Your task to perform on an android device: turn on showing notifications on the lock screen Image 0: 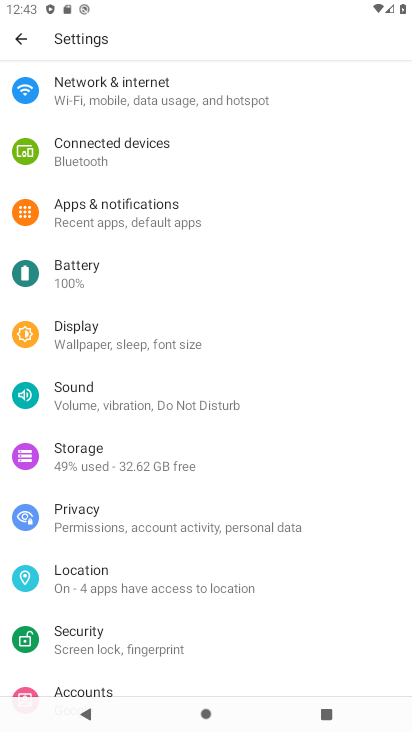
Step 0: press home button
Your task to perform on an android device: turn on showing notifications on the lock screen Image 1: 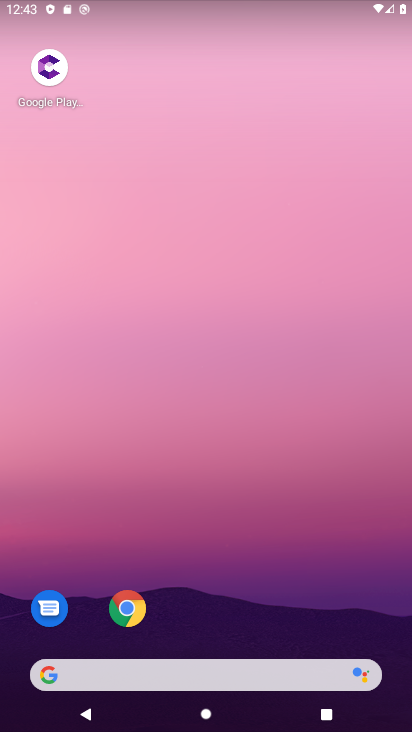
Step 1: drag from (214, 606) to (297, 221)
Your task to perform on an android device: turn on showing notifications on the lock screen Image 2: 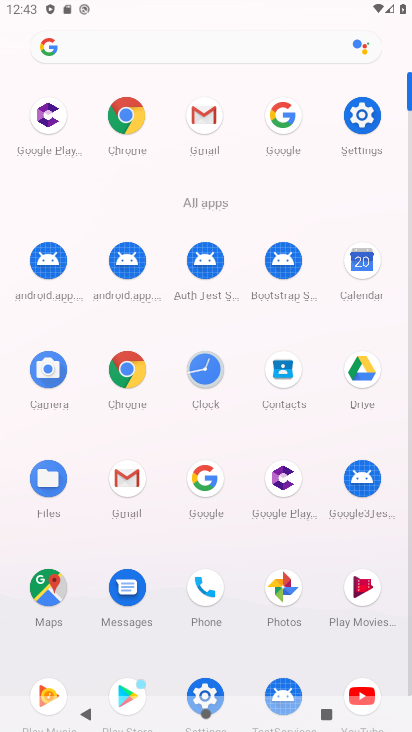
Step 2: click (365, 120)
Your task to perform on an android device: turn on showing notifications on the lock screen Image 3: 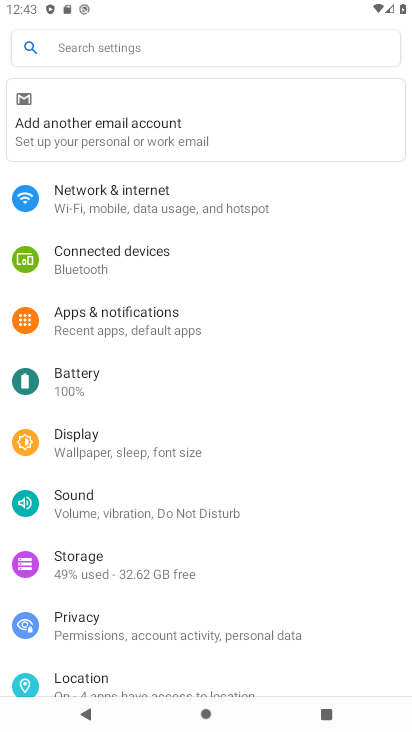
Step 3: click (178, 323)
Your task to perform on an android device: turn on showing notifications on the lock screen Image 4: 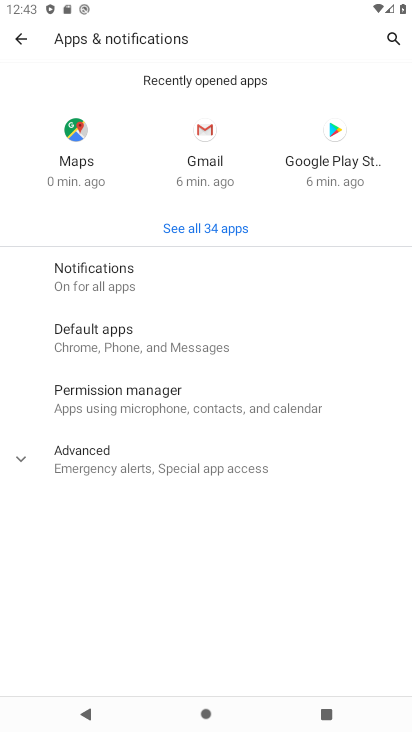
Step 4: click (177, 283)
Your task to perform on an android device: turn on showing notifications on the lock screen Image 5: 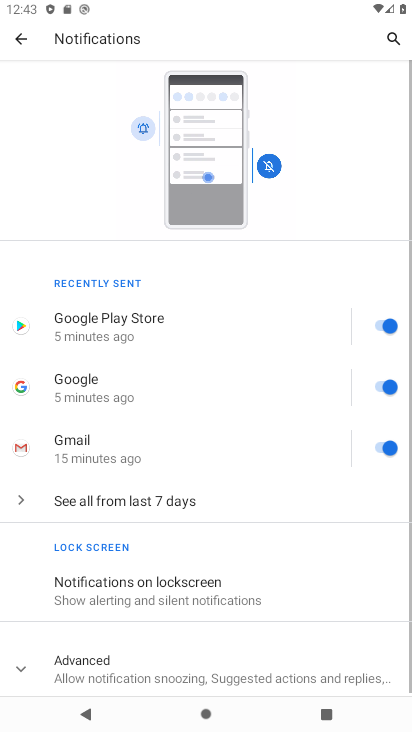
Step 5: drag from (165, 601) to (206, 318)
Your task to perform on an android device: turn on showing notifications on the lock screen Image 6: 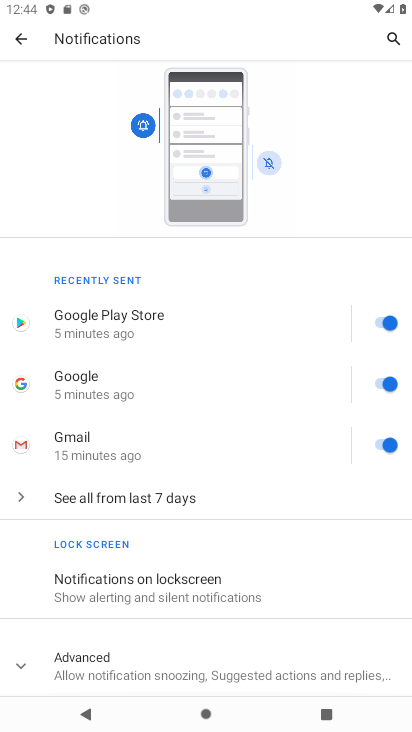
Step 6: click (129, 585)
Your task to perform on an android device: turn on showing notifications on the lock screen Image 7: 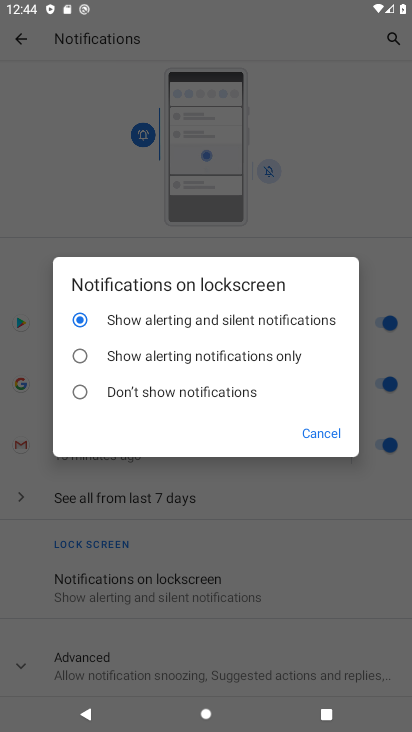
Step 7: task complete